Your task to perform on an android device: open chrome privacy settings Image 0: 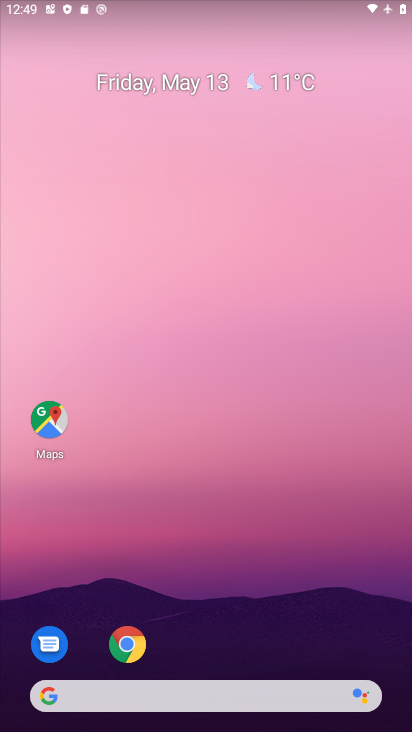
Step 0: click (129, 642)
Your task to perform on an android device: open chrome privacy settings Image 1: 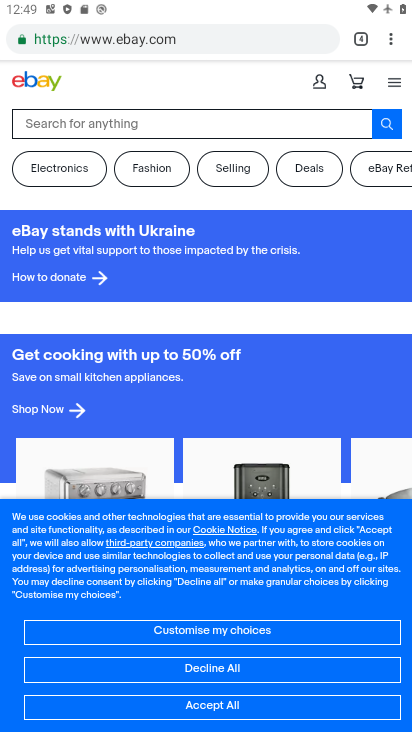
Step 1: click (392, 44)
Your task to perform on an android device: open chrome privacy settings Image 2: 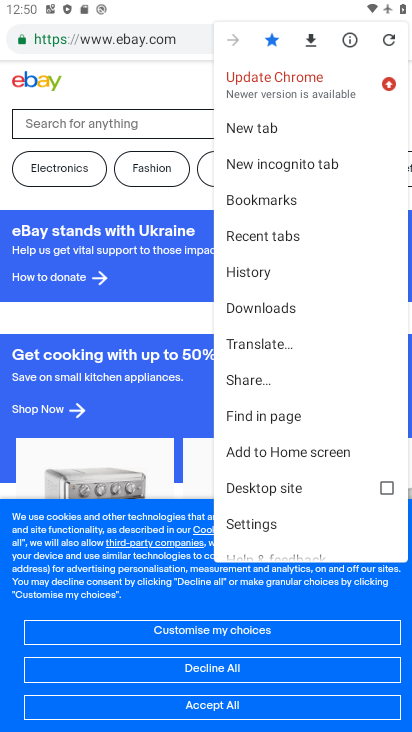
Step 2: click (255, 526)
Your task to perform on an android device: open chrome privacy settings Image 3: 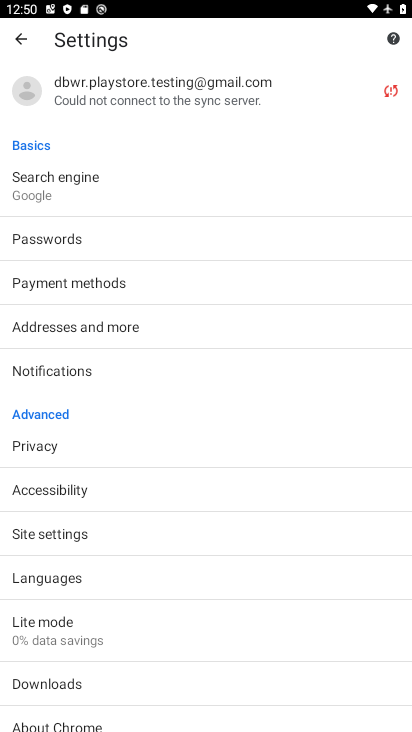
Step 3: click (48, 445)
Your task to perform on an android device: open chrome privacy settings Image 4: 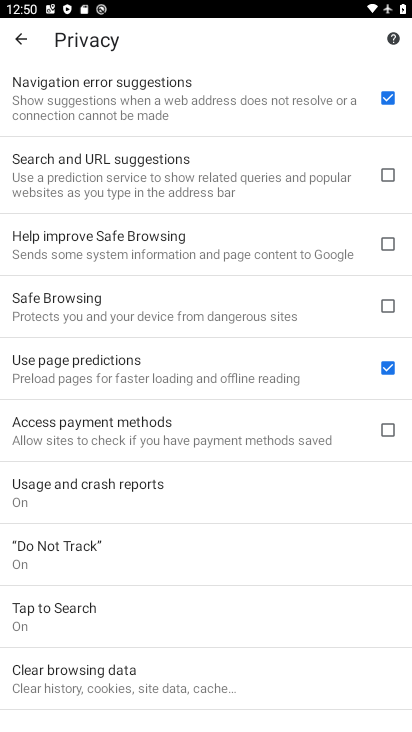
Step 4: task complete